Your task to perform on an android device: stop showing notifications on the lock screen Image 0: 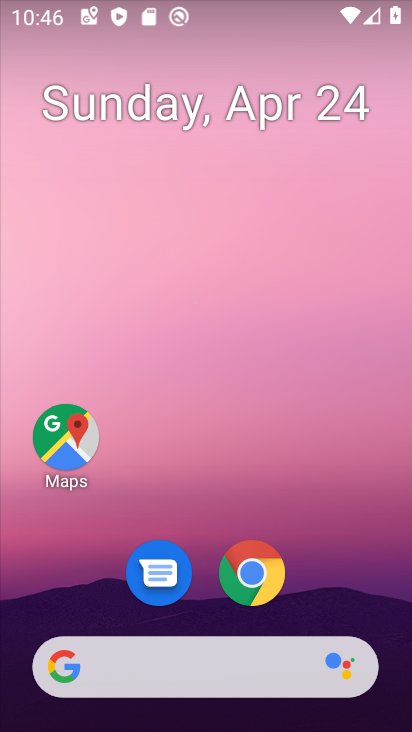
Step 0: drag from (328, 615) to (344, 71)
Your task to perform on an android device: stop showing notifications on the lock screen Image 1: 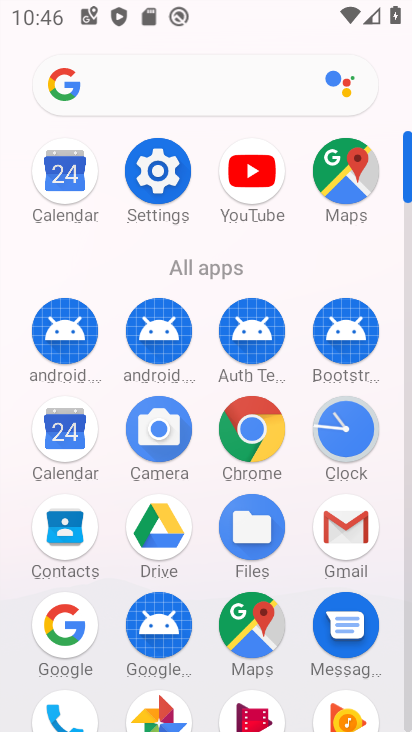
Step 1: click (154, 170)
Your task to perform on an android device: stop showing notifications on the lock screen Image 2: 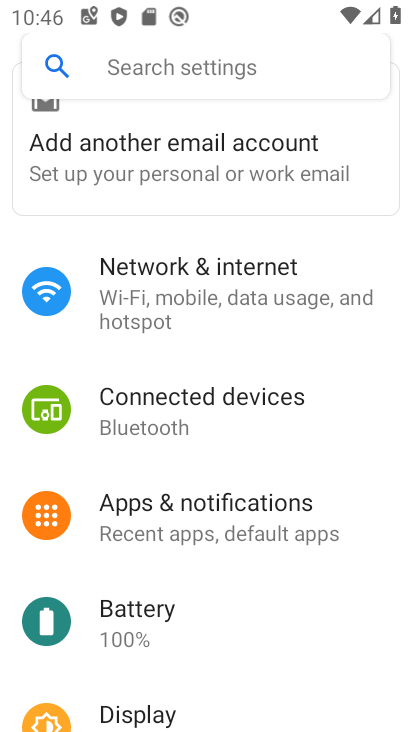
Step 2: click (218, 535)
Your task to perform on an android device: stop showing notifications on the lock screen Image 3: 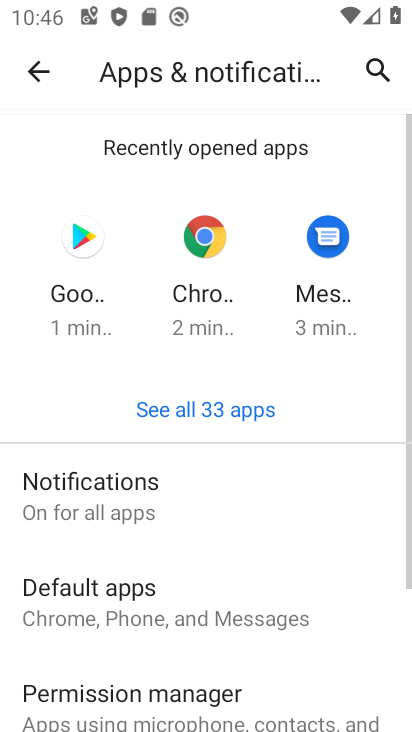
Step 3: click (127, 495)
Your task to perform on an android device: stop showing notifications on the lock screen Image 4: 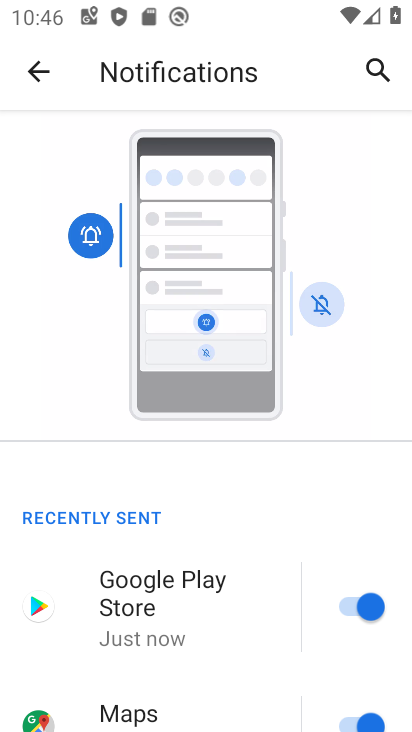
Step 4: drag from (136, 584) to (185, 183)
Your task to perform on an android device: stop showing notifications on the lock screen Image 5: 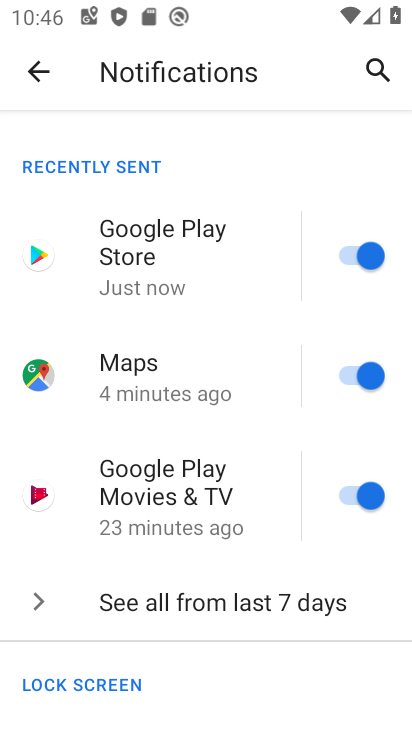
Step 5: drag from (151, 607) to (178, 381)
Your task to perform on an android device: stop showing notifications on the lock screen Image 6: 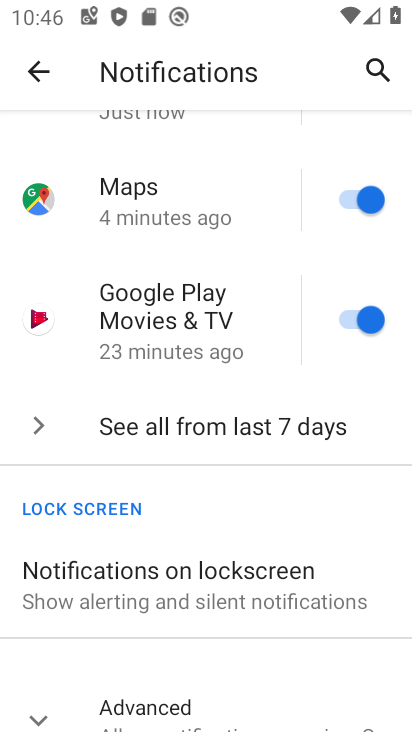
Step 6: click (171, 570)
Your task to perform on an android device: stop showing notifications on the lock screen Image 7: 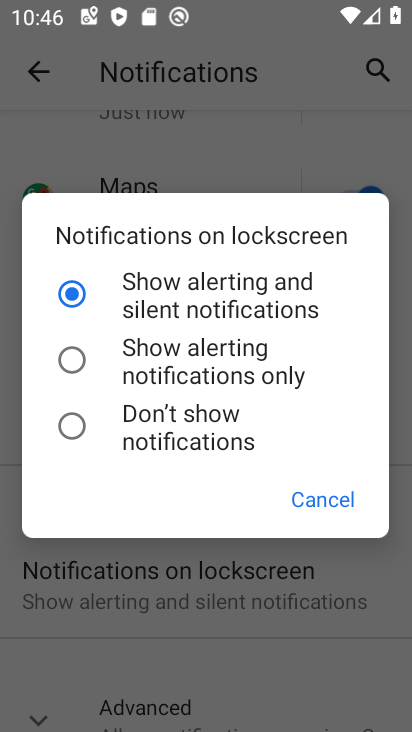
Step 7: click (153, 426)
Your task to perform on an android device: stop showing notifications on the lock screen Image 8: 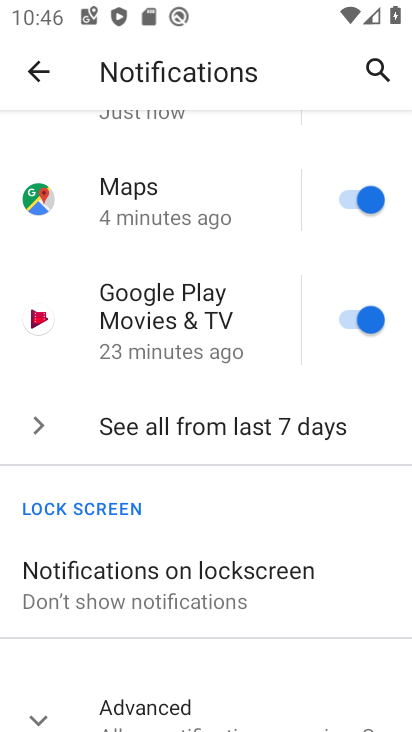
Step 8: task complete